Your task to perform on an android device: Open the map Image 0: 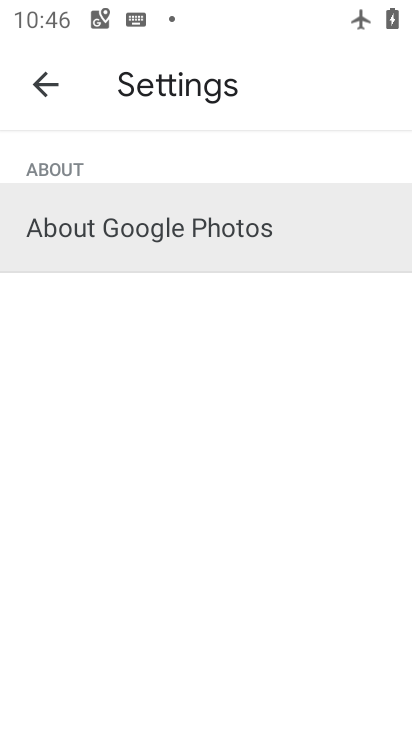
Step 0: press home button
Your task to perform on an android device: Open the map Image 1: 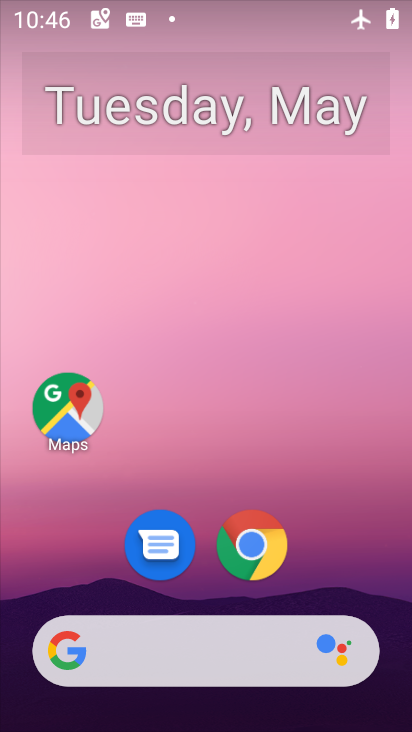
Step 1: drag from (280, 608) to (265, 38)
Your task to perform on an android device: Open the map Image 2: 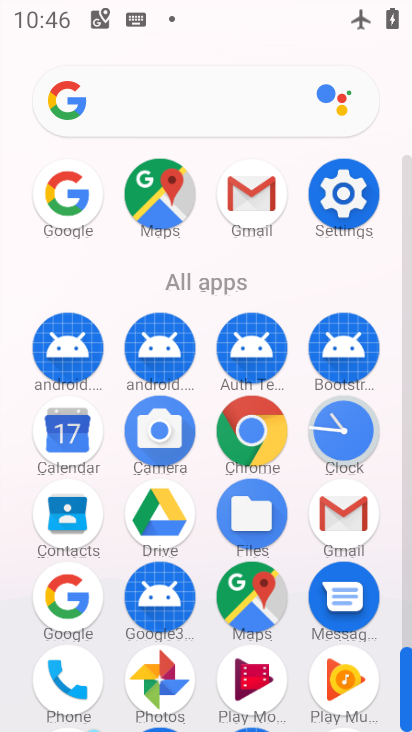
Step 2: click (160, 206)
Your task to perform on an android device: Open the map Image 3: 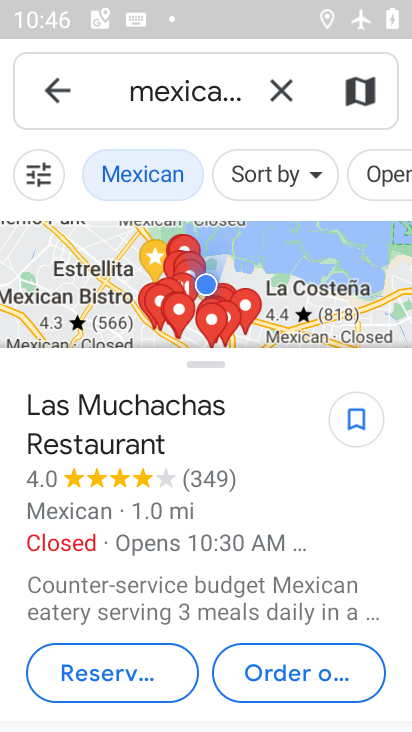
Step 3: task complete